Your task to perform on an android device: Open privacy settings Image 0: 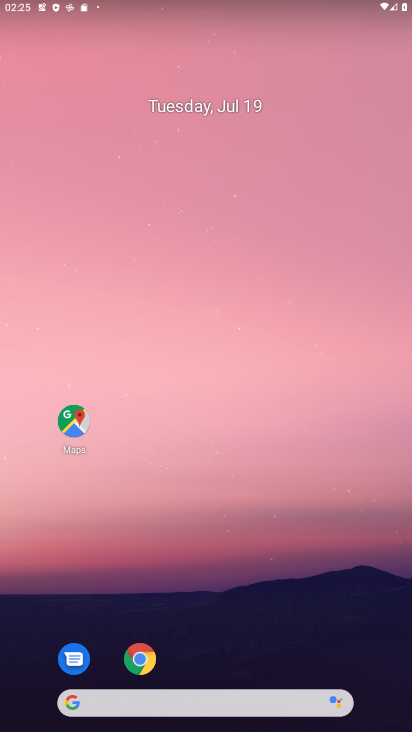
Step 0: press home button
Your task to perform on an android device: Open privacy settings Image 1: 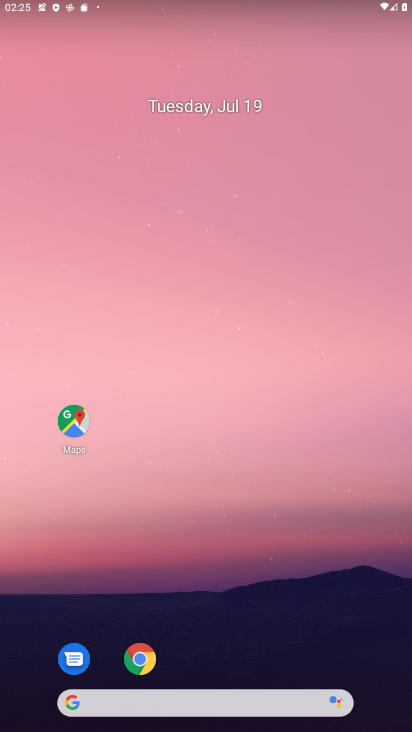
Step 1: drag from (230, 621) to (233, 230)
Your task to perform on an android device: Open privacy settings Image 2: 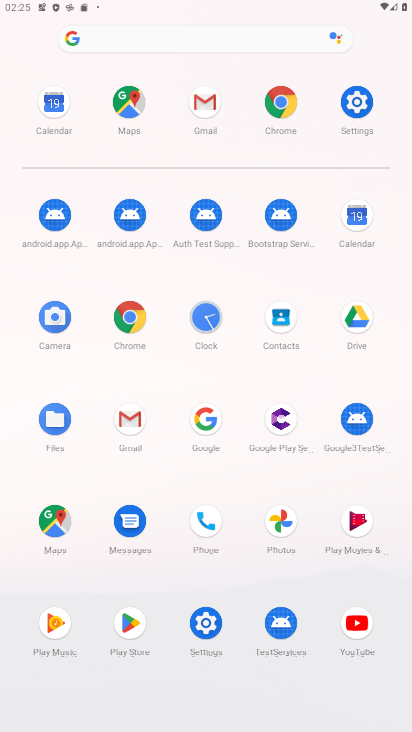
Step 2: click (208, 622)
Your task to perform on an android device: Open privacy settings Image 3: 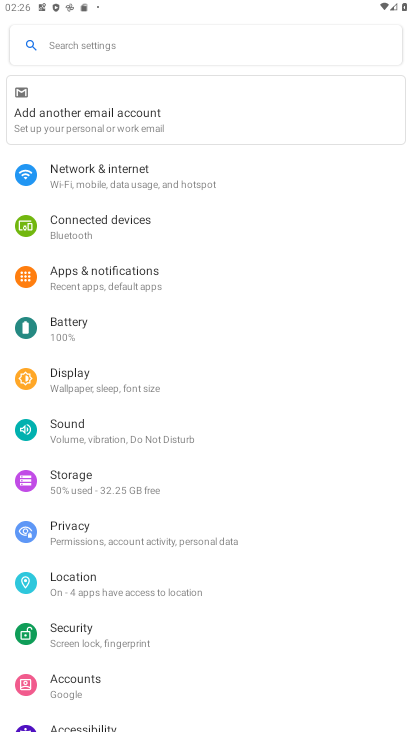
Step 3: drag from (127, 652) to (118, 564)
Your task to perform on an android device: Open privacy settings Image 4: 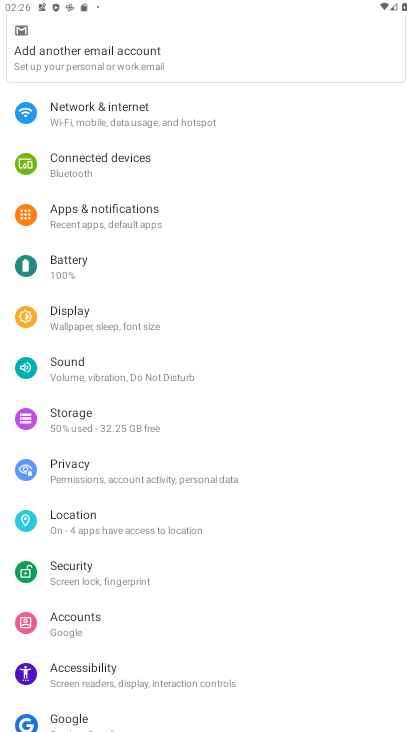
Step 4: click (116, 464)
Your task to perform on an android device: Open privacy settings Image 5: 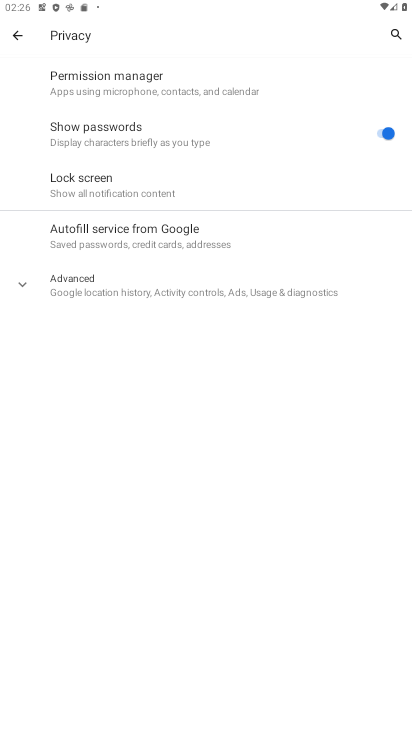
Step 5: task complete